Your task to perform on an android device: Find coffee shops on Maps Image 0: 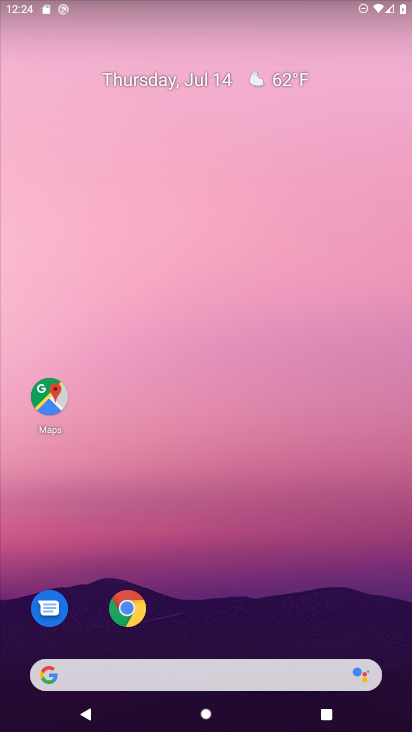
Step 0: drag from (237, 728) to (237, 80)
Your task to perform on an android device: Find coffee shops on Maps Image 1: 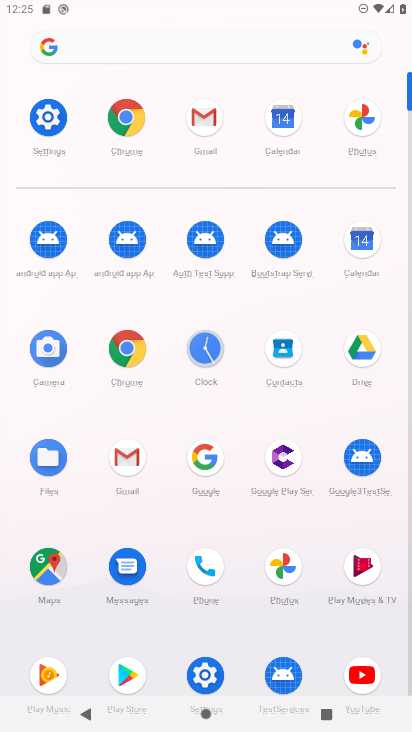
Step 1: click (35, 566)
Your task to perform on an android device: Find coffee shops on Maps Image 2: 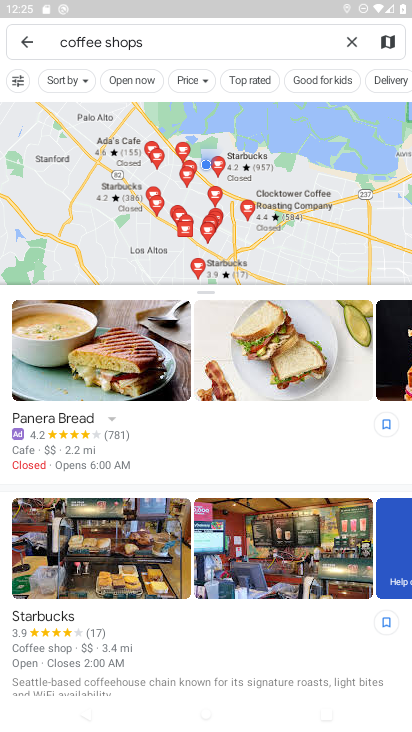
Step 2: task complete